Your task to perform on an android device: open app "Google Duo" Image 0: 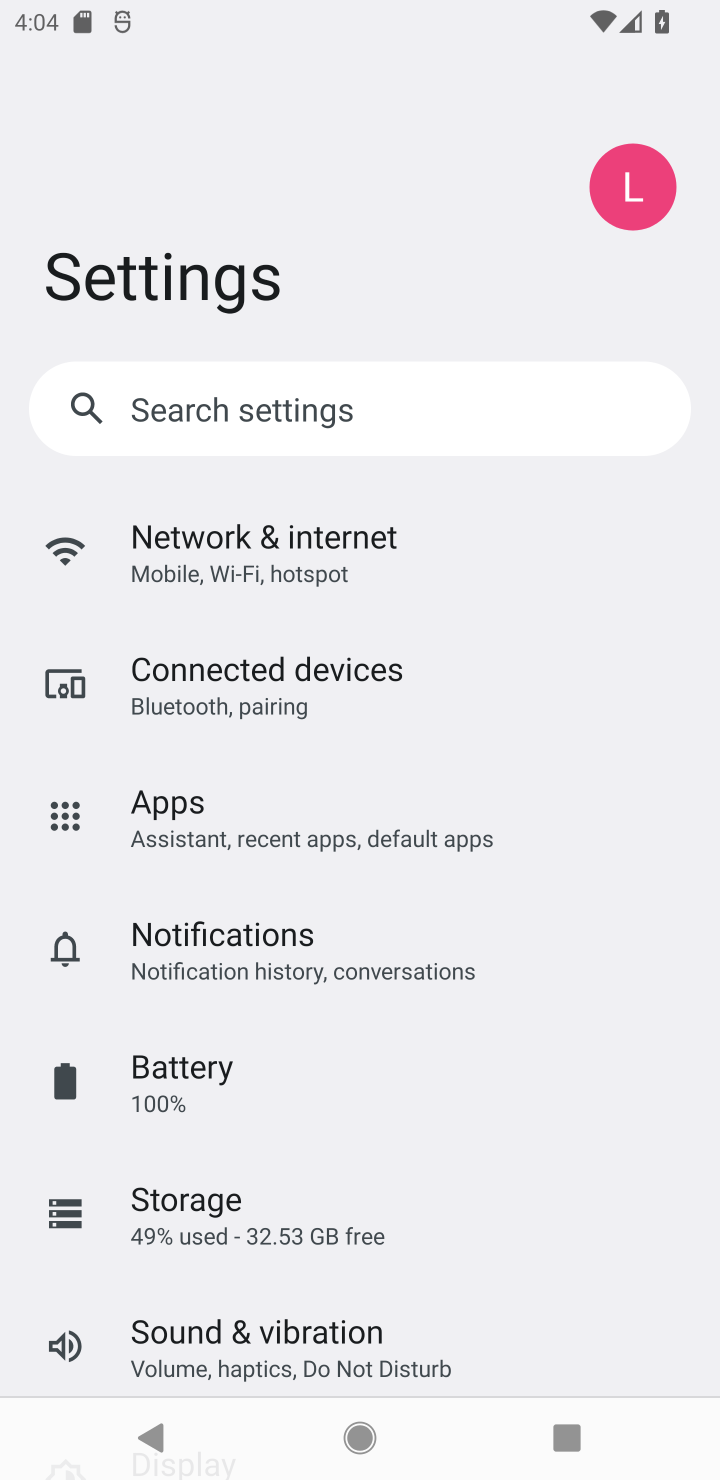
Step 0: press home button
Your task to perform on an android device: open app "Google Duo" Image 1: 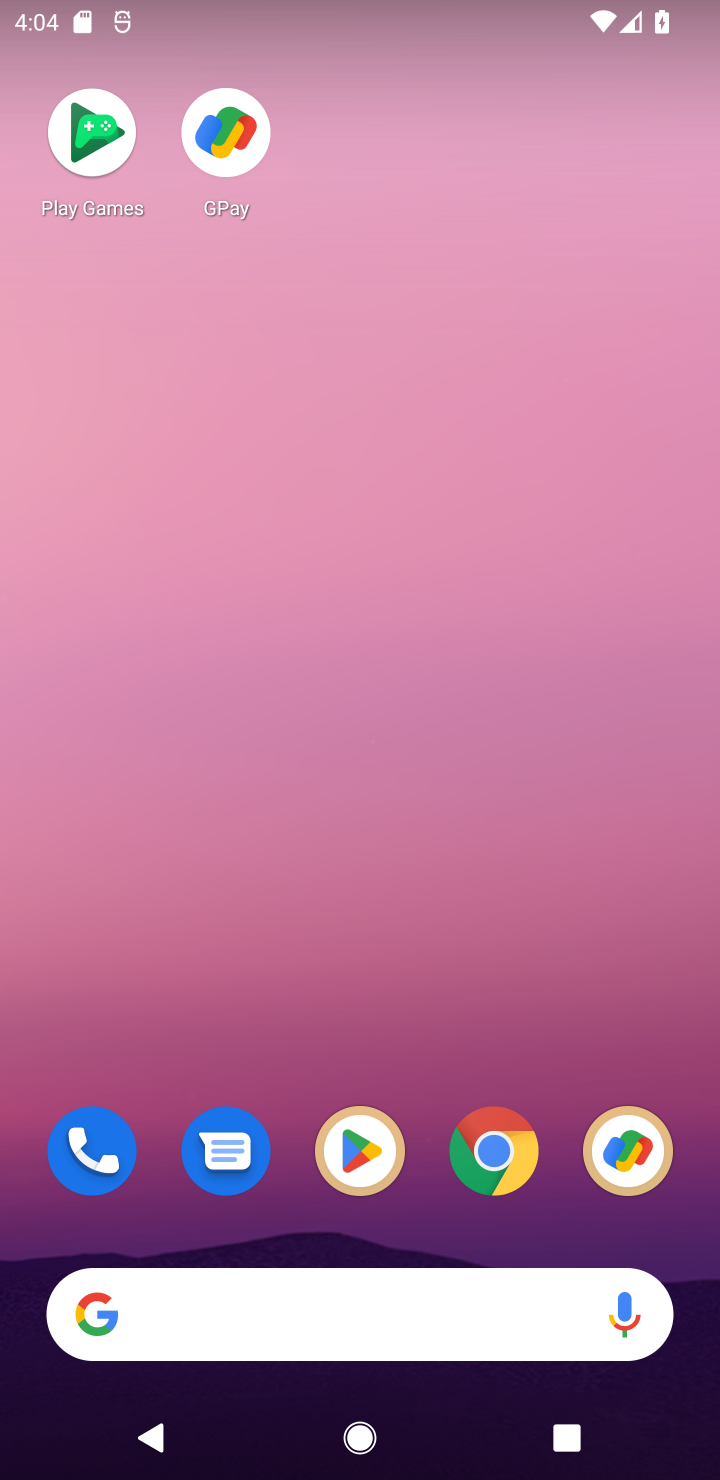
Step 1: click (300, 1203)
Your task to perform on an android device: open app "Google Duo" Image 2: 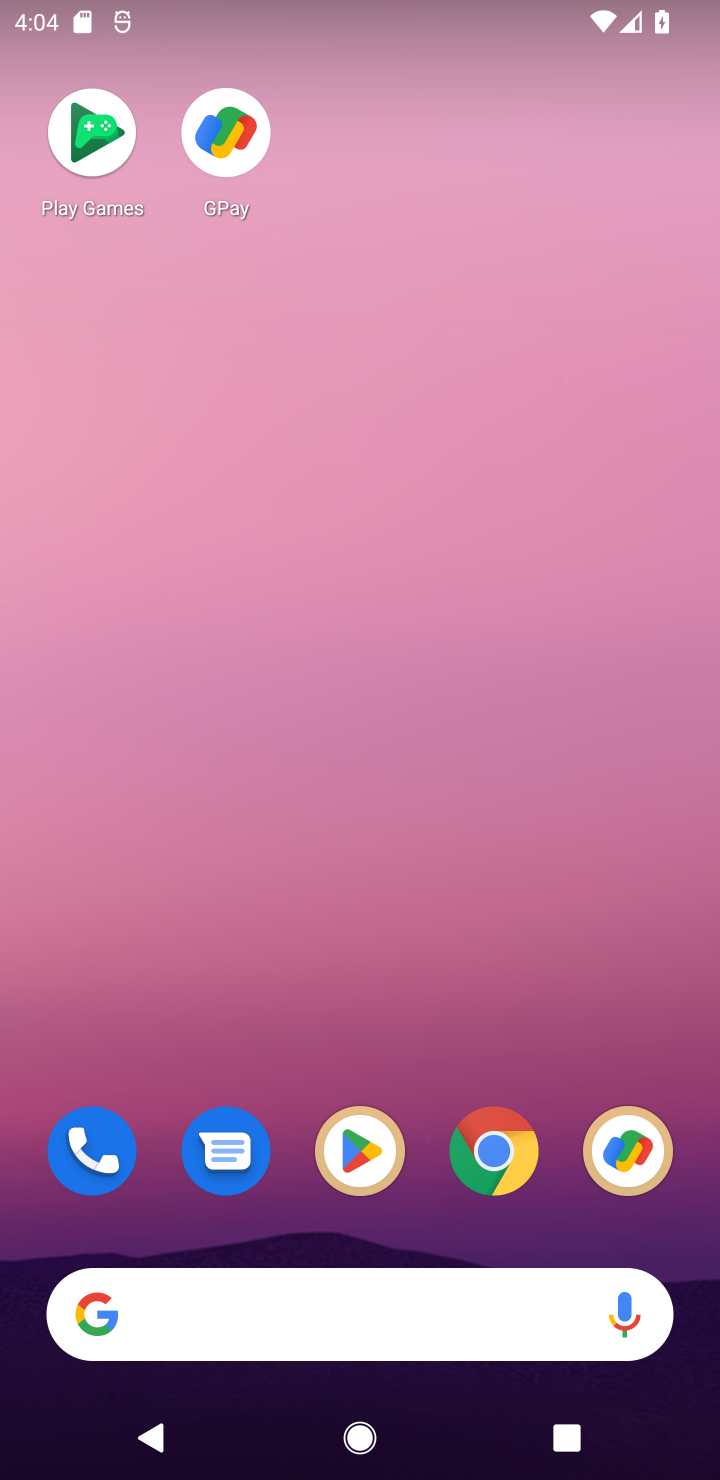
Step 2: click (363, 1125)
Your task to perform on an android device: open app "Google Duo" Image 3: 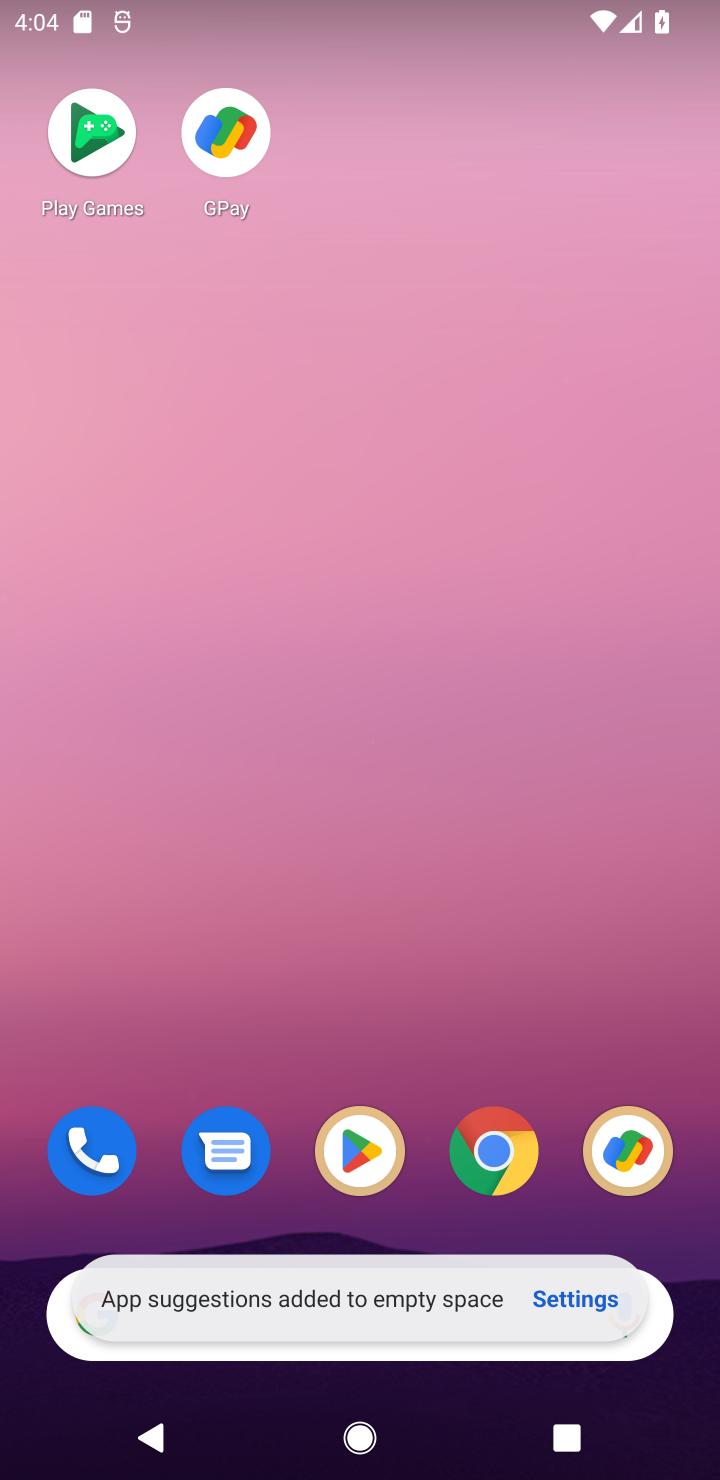
Step 3: click (363, 1125)
Your task to perform on an android device: open app "Google Duo" Image 4: 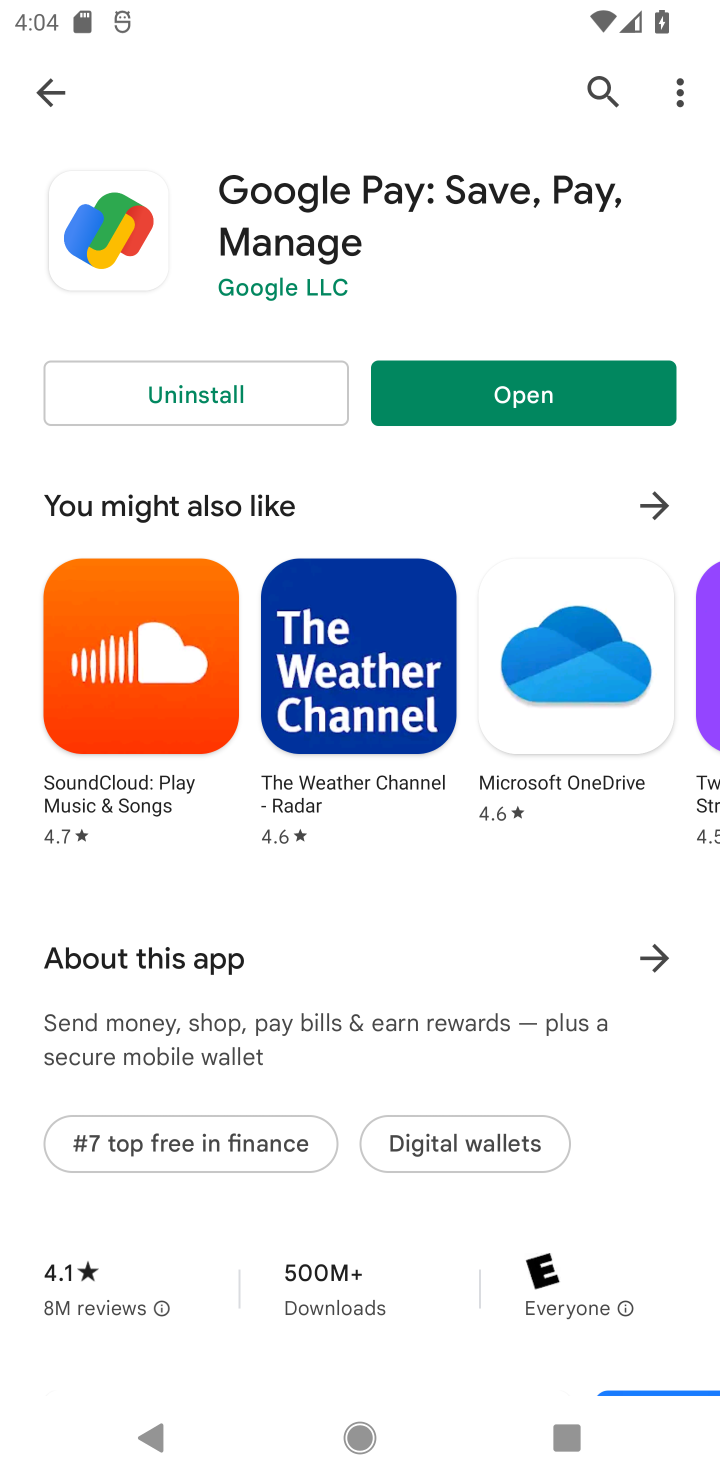
Step 4: click (42, 69)
Your task to perform on an android device: open app "Google Duo" Image 5: 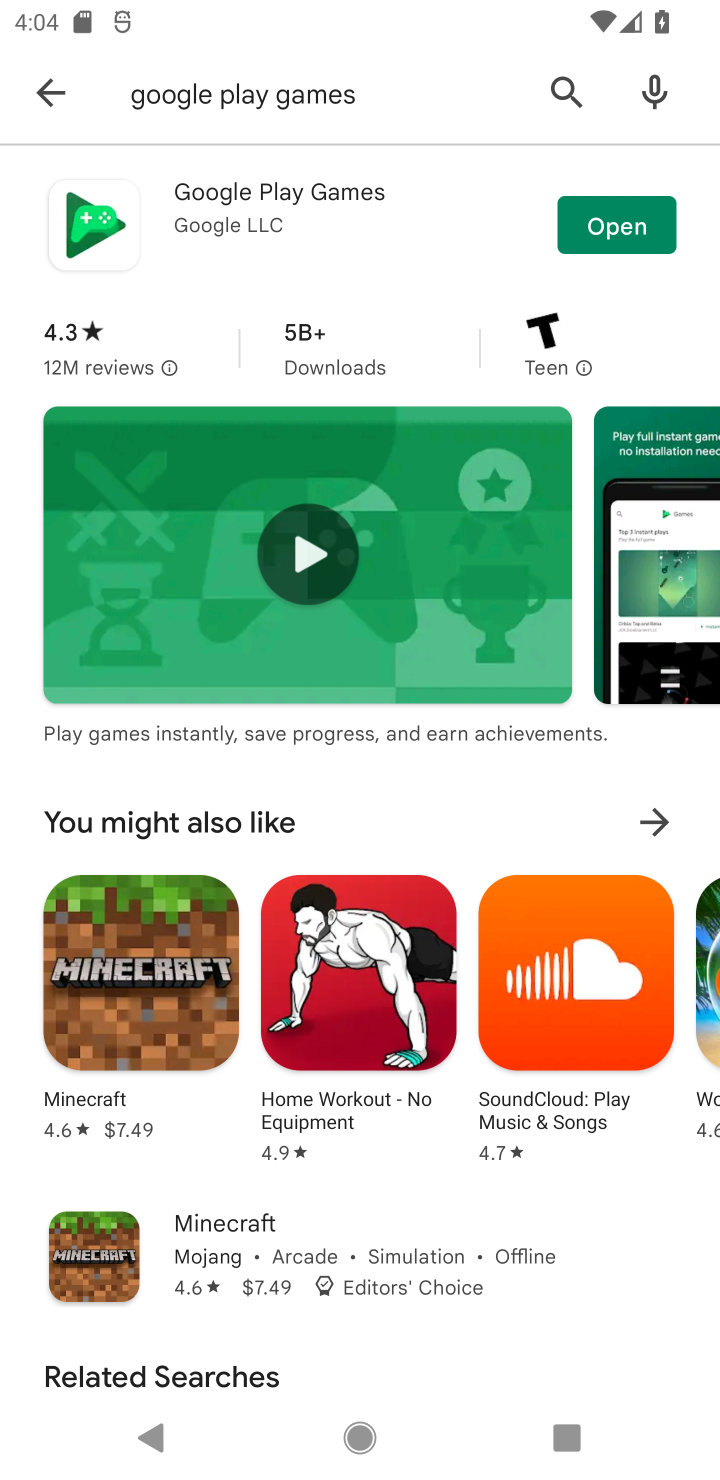
Step 5: click (578, 100)
Your task to perform on an android device: open app "Google Duo" Image 6: 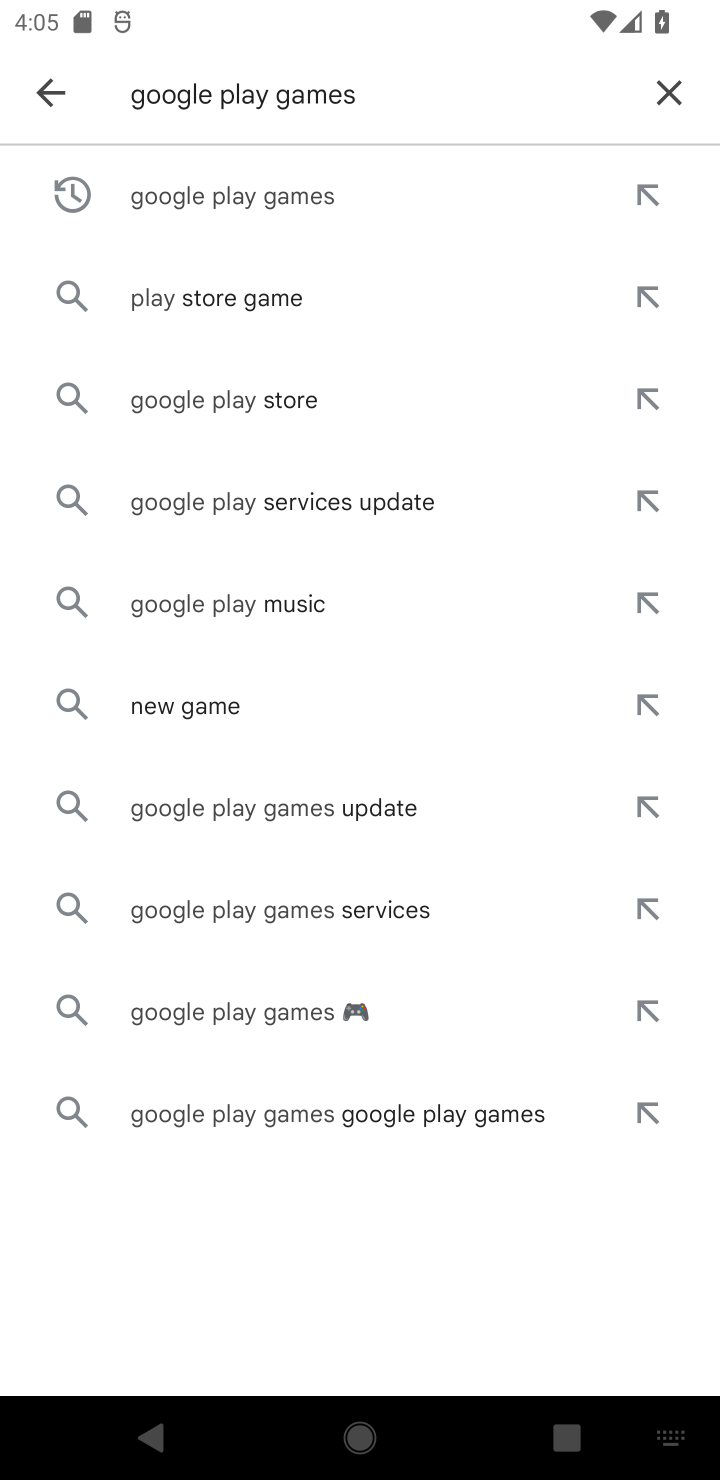
Step 6: click (681, 85)
Your task to perform on an android device: open app "Google Duo" Image 7: 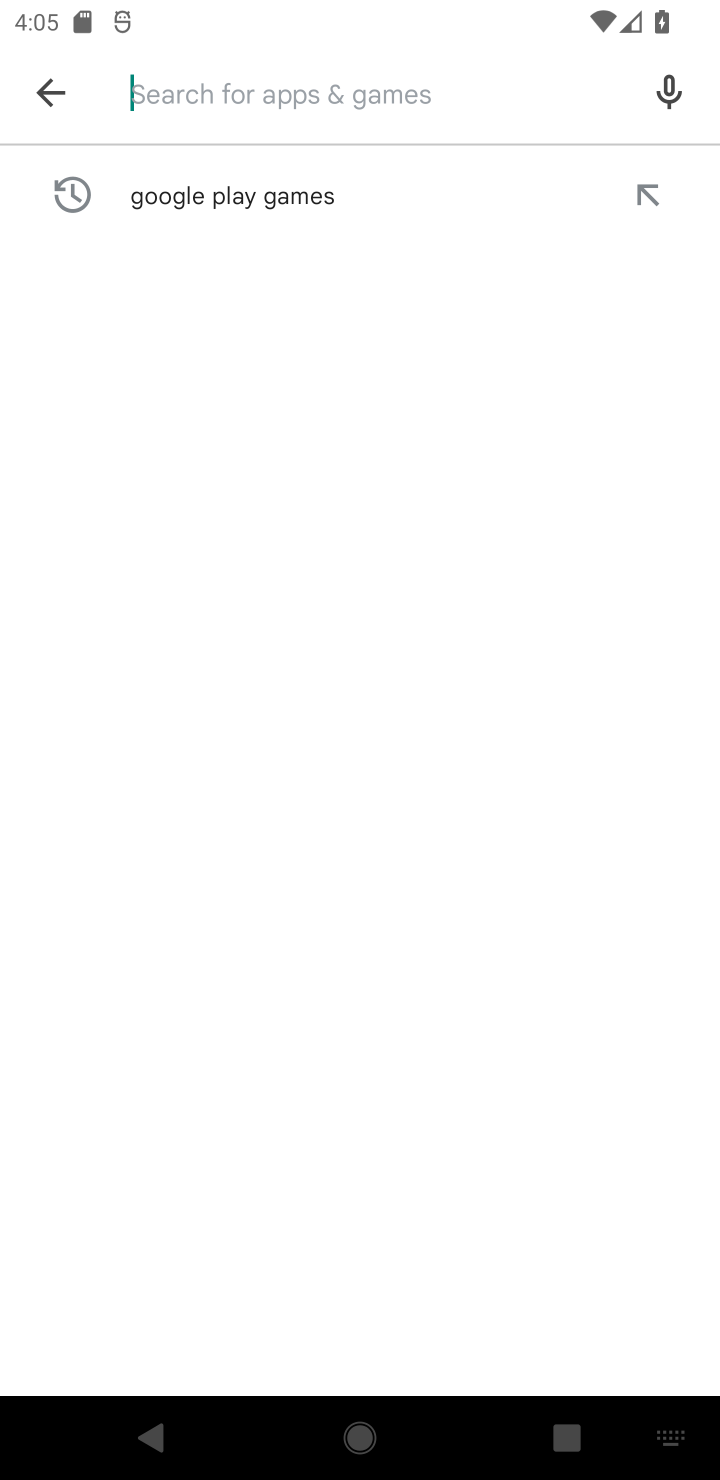
Step 7: type "Google Duo"
Your task to perform on an android device: open app "Google Duo" Image 8: 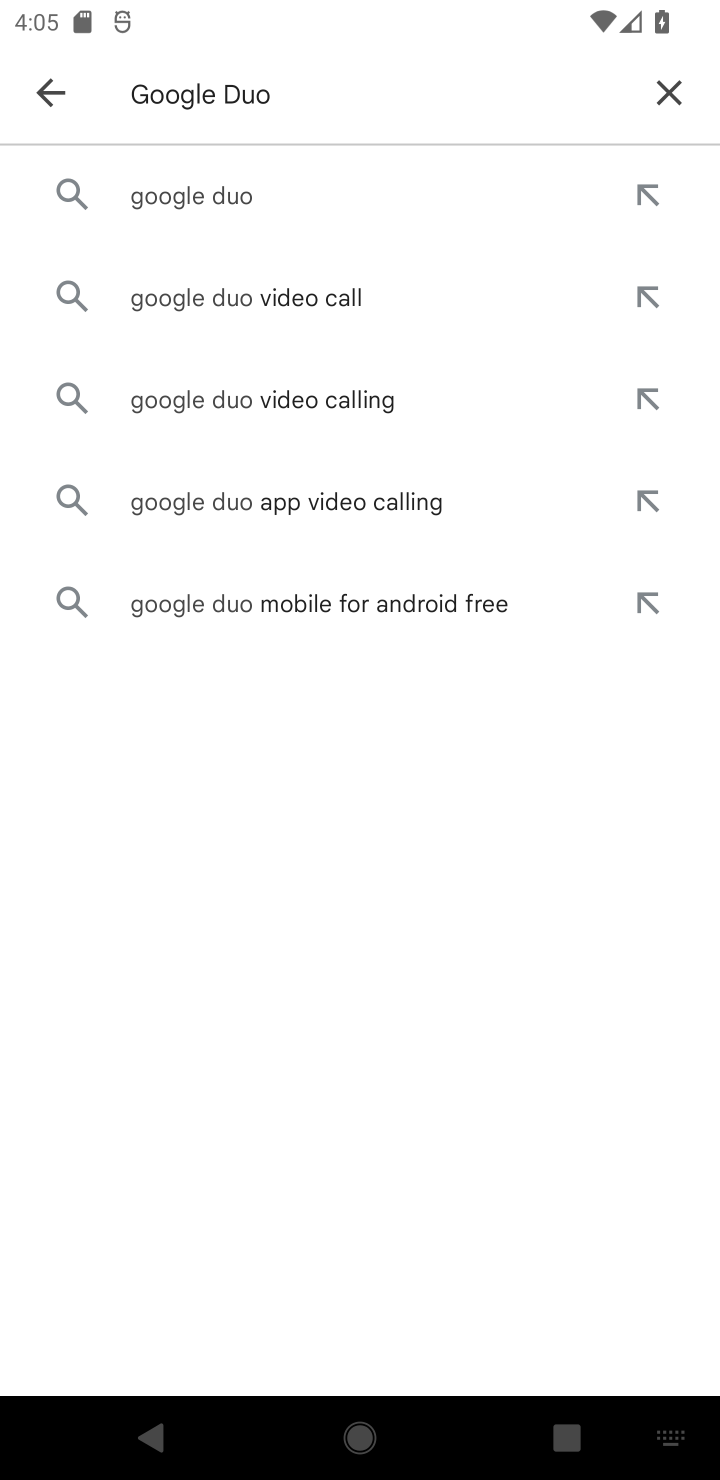
Step 8: click (186, 230)
Your task to perform on an android device: open app "Google Duo" Image 9: 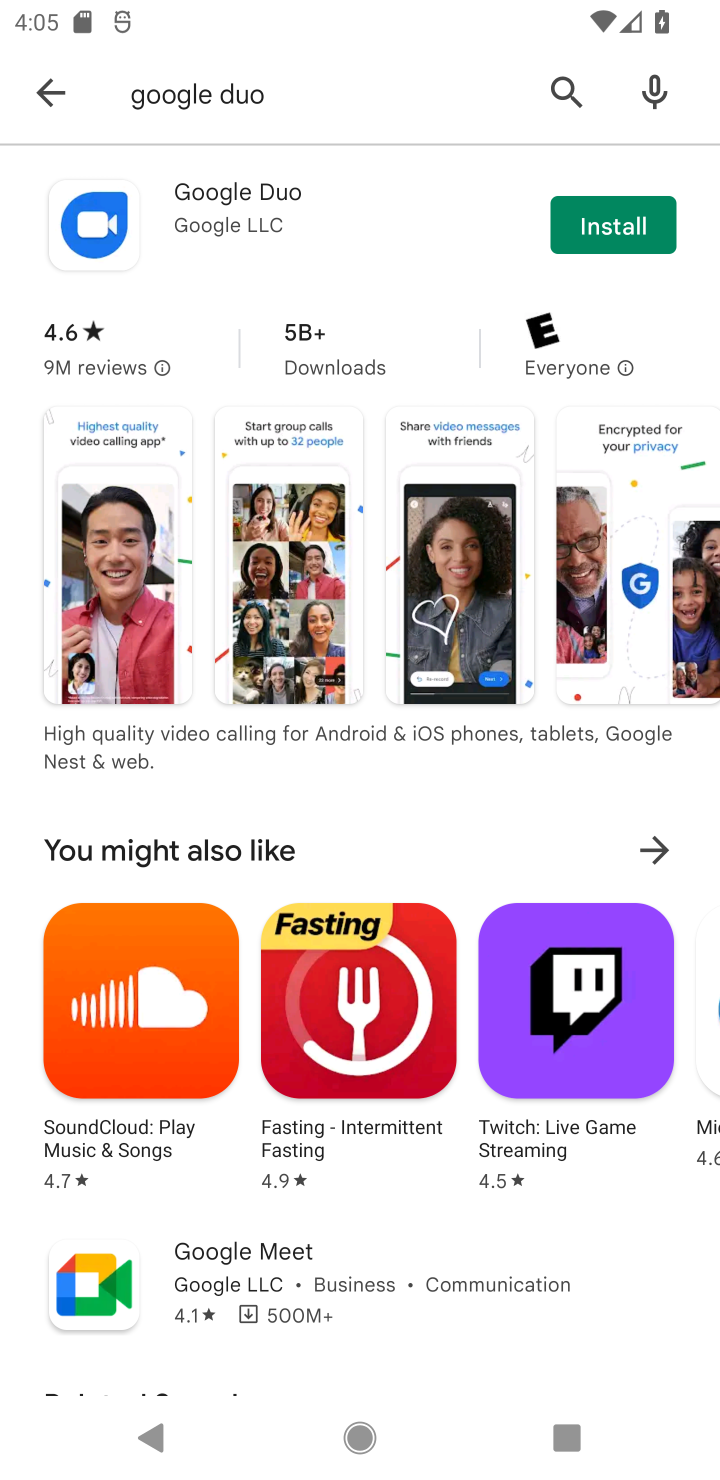
Step 9: task complete